Your task to perform on an android device: Go to notification settings Image 0: 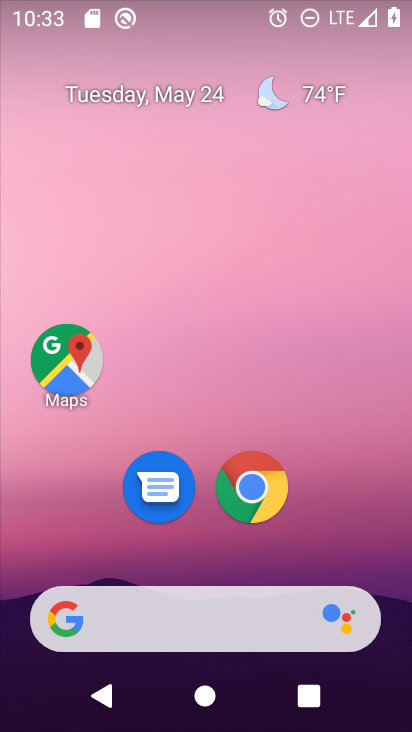
Step 0: drag from (386, 574) to (368, 11)
Your task to perform on an android device: Go to notification settings Image 1: 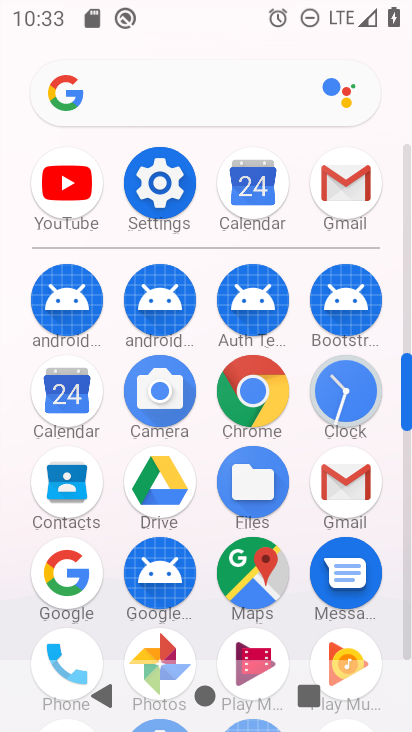
Step 1: click (170, 176)
Your task to perform on an android device: Go to notification settings Image 2: 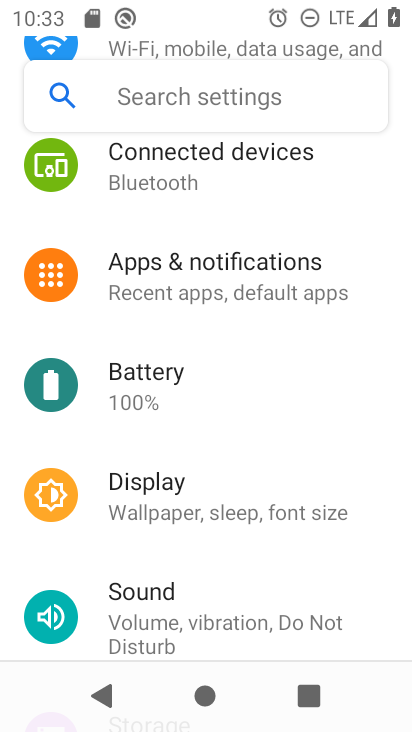
Step 2: click (198, 281)
Your task to perform on an android device: Go to notification settings Image 3: 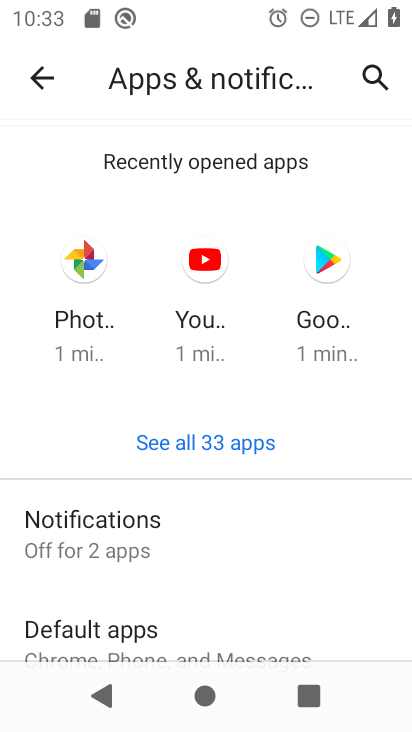
Step 3: task complete